Your task to perform on an android device: turn pop-ups off in chrome Image 0: 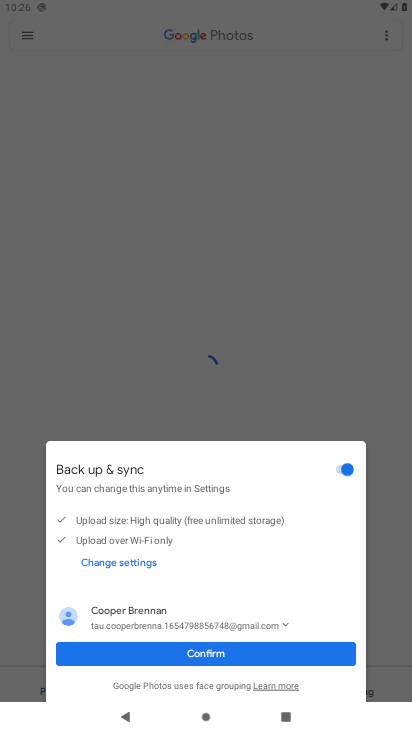
Step 0: press home button
Your task to perform on an android device: turn pop-ups off in chrome Image 1: 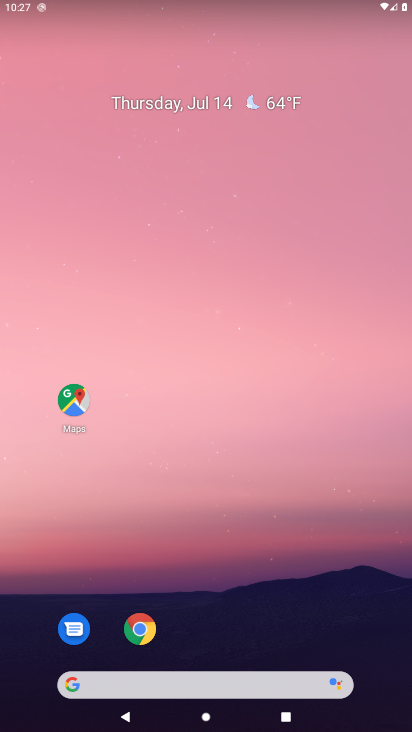
Step 1: click (139, 629)
Your task to perform on an android device: turn pop-ups off in chrome Image 2: 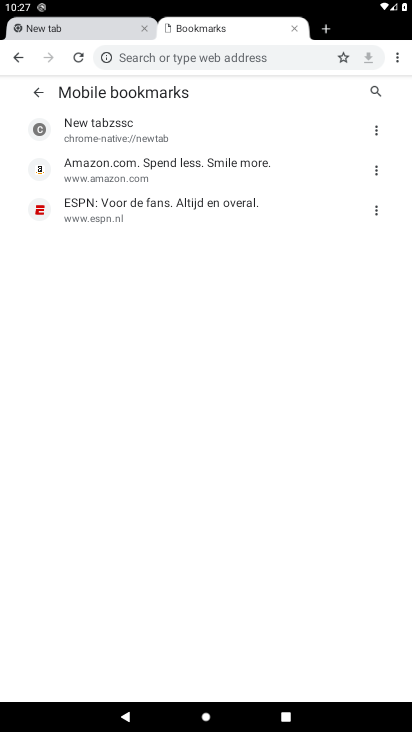
Step 2: click (395, 55)
Your task to perform on an android device: turn pop-ups off in chrome Image 3: 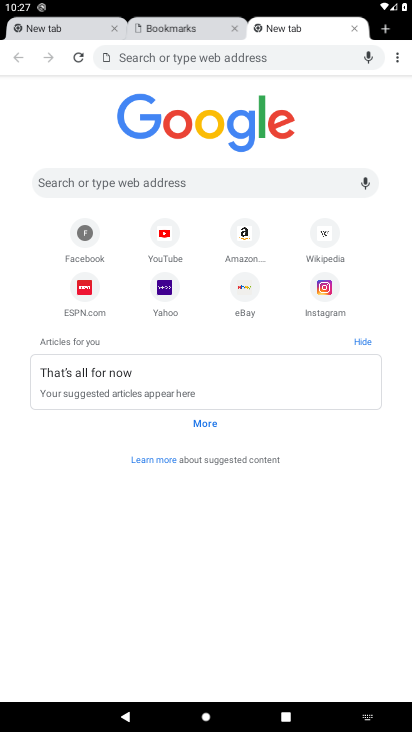
Step 3: click (395, 55)
Your task to perform on an android device: turn pop-ups off in chrome Image 4: 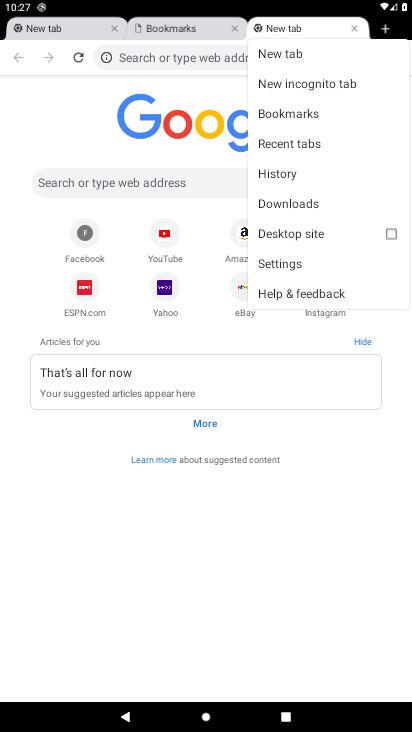
Step 4: click (281, 265)
Your task to perform on an android device: turn pop-ups off in chrome Image 5: 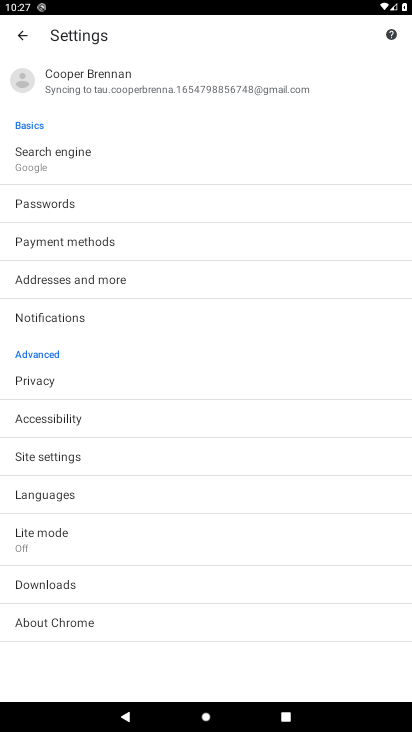
Step 5: click (54, 450)
Your task to perform on an android device: turn pop-ups off in chrome Image 6: 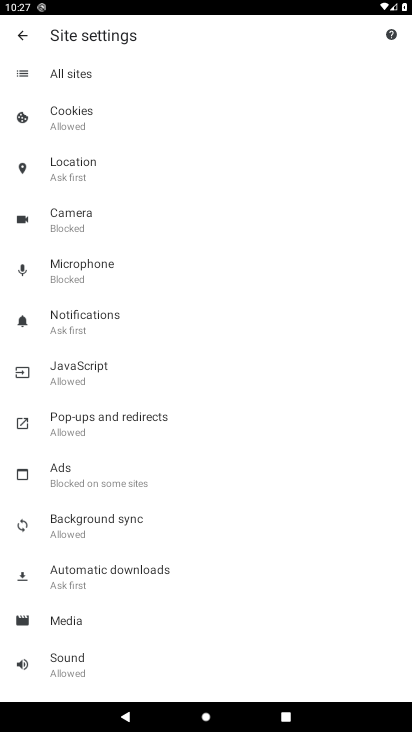
Step 6: click (106, 428)
Your task to perform on an android device: turn pop-ups off in chrome Image 7: 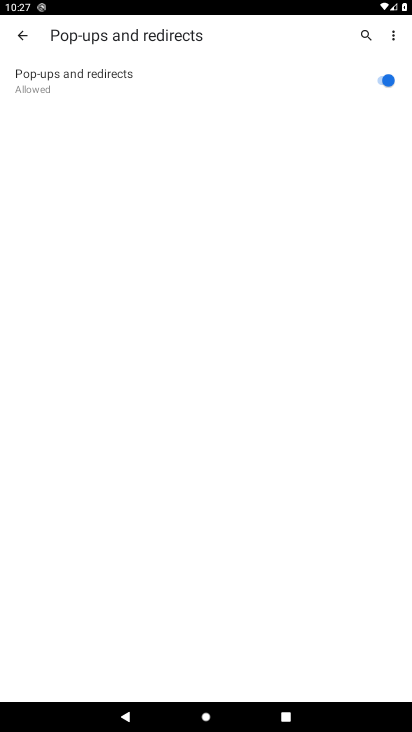
Step 7: click (380, 79)
Your task to perform on an android device: turn pop-ups off in chrome Image 8: 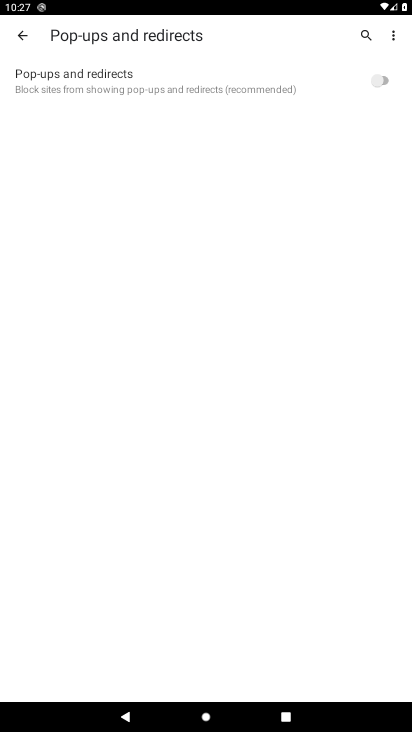
Step 8: task complete